Your task to perform on an android device: Is it going to rain today? Image 0: 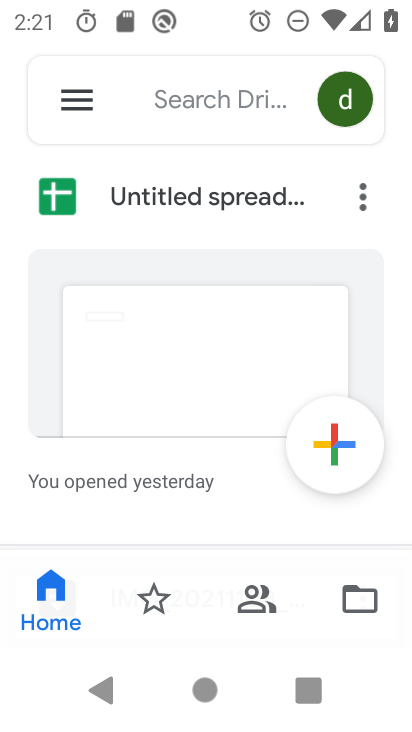
Step 0: press home button
Your task to perform on an android device: Is it going to rain today? Image 1: 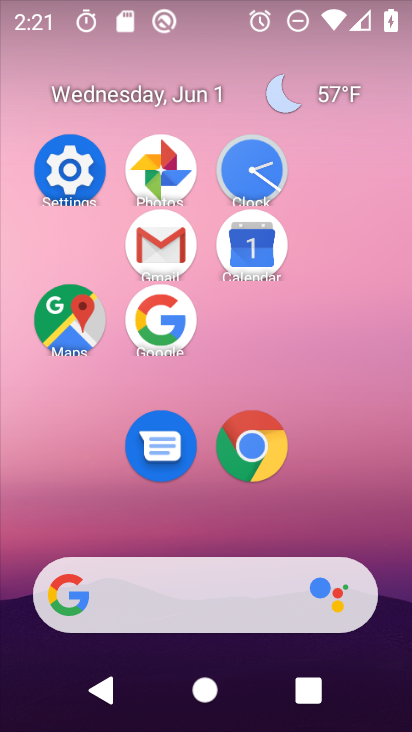
Step 1: click (170, 302)
Your task to perform on an android device: Is it going to rain today? Image 2: 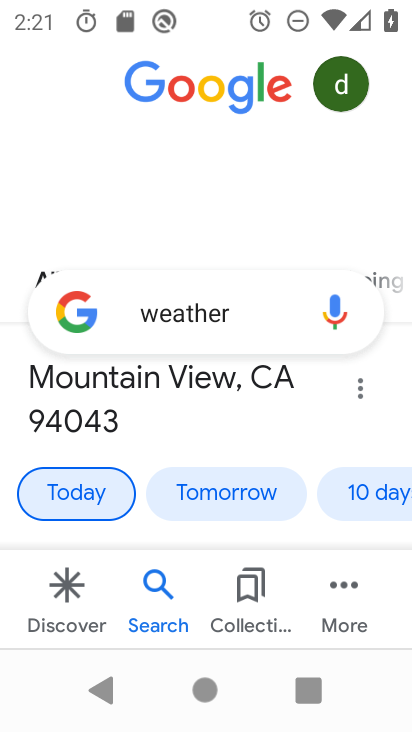
Step 2: task complete